Your task to perform on an android device: delete the emails in spam in the gmail app Image 0: 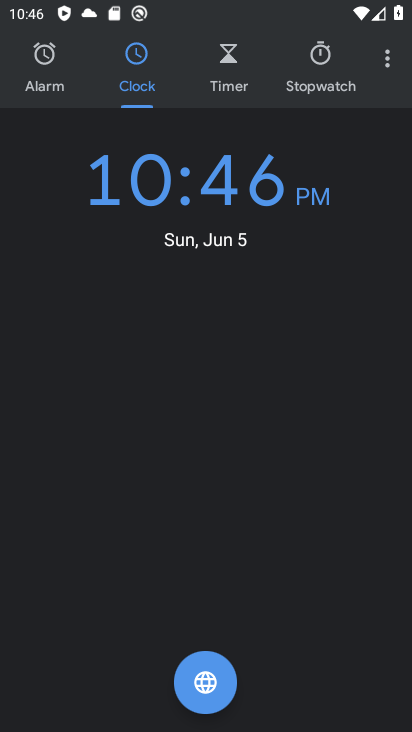
Step 0: press home button
Your task to perform on an android device: delete the emails in spam in the gmail app Image 1: 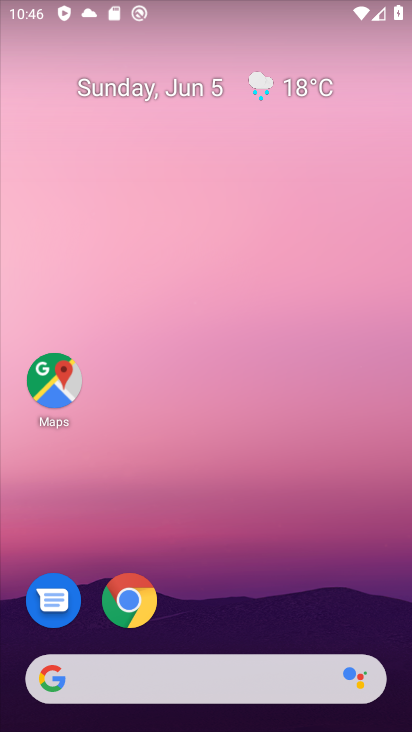
Step 1: drag from (198, 636) to (233, 192)
Your task to perform on an android device: delete the emails in spam in the gmail app Image 2: 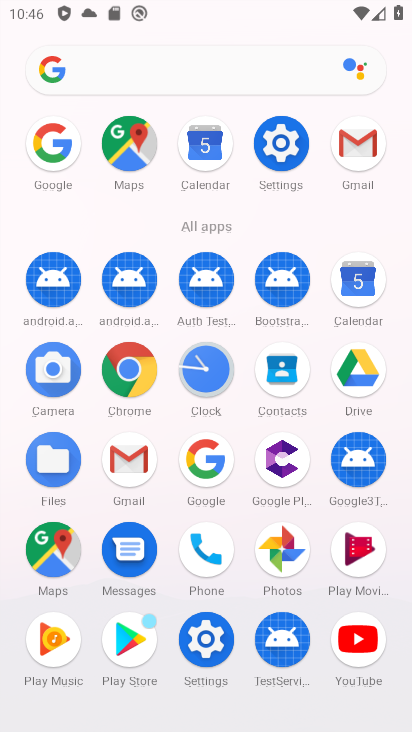
Step 2: click (346, 149)
Your task to perform on an android device: delete the emails in spam in the gmail app Image 3: 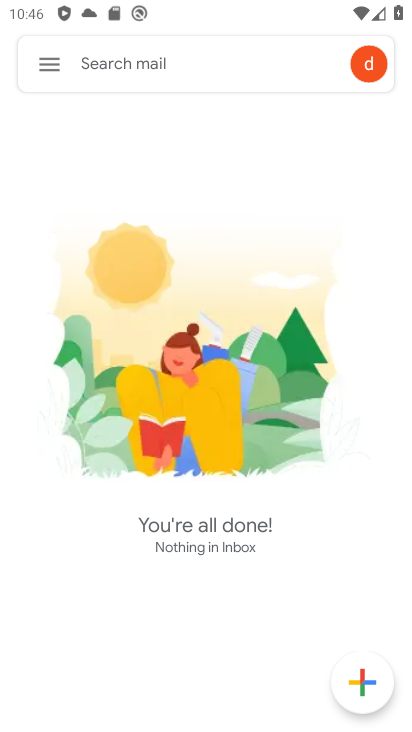
Step 3: click (50, 61)
Your task to perform on an android device: delete the emails in spam in the gmail app Image 4: 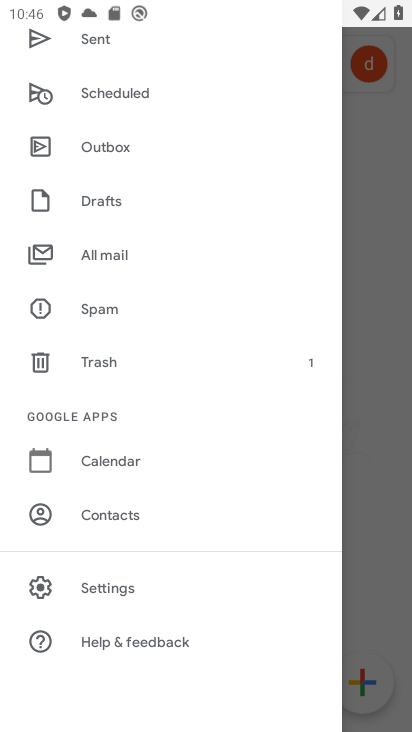
Step 4: drag from (179, 242) to (213, 539)
Your task to perform on an android device: delete the emails in spam in the gmail app Image 5: 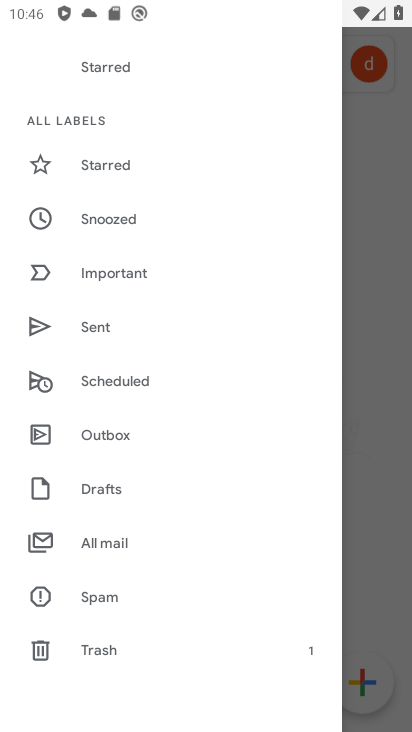
Step 5: drag from (194, 245) to (200, 515)
Your task to perform on an android device: delete the emails in spam in the gmail app Image 6: 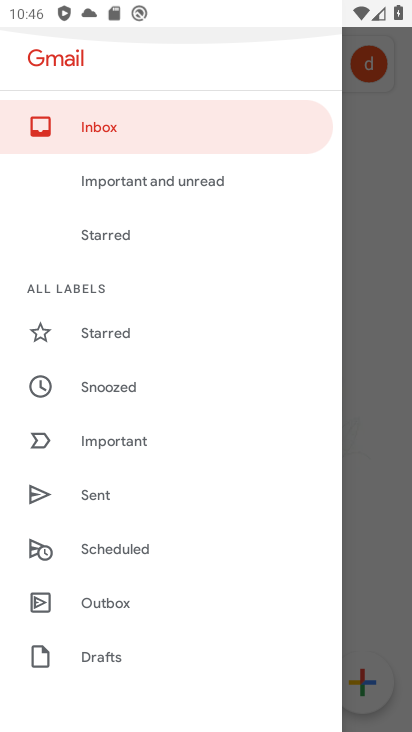
Step 6: drag from (211, 507) to (251, 229)
Your task to perform on an android device: delete the emails in spam in the gmail app Image 7: 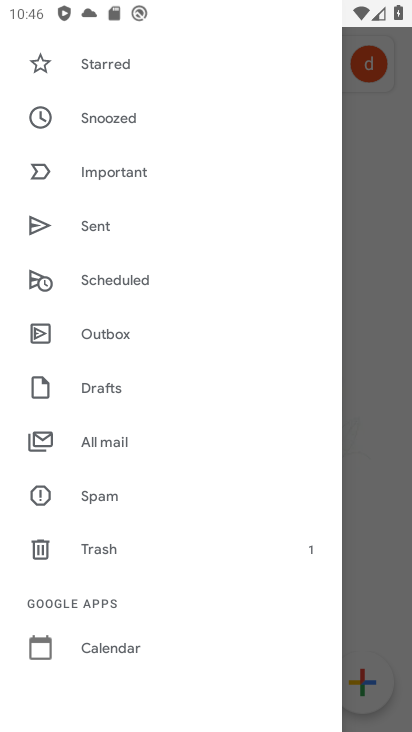
Step 7: click (122, 500)
Your task to perform on an android device: delete the emails in spam in the gmail app Image 8: 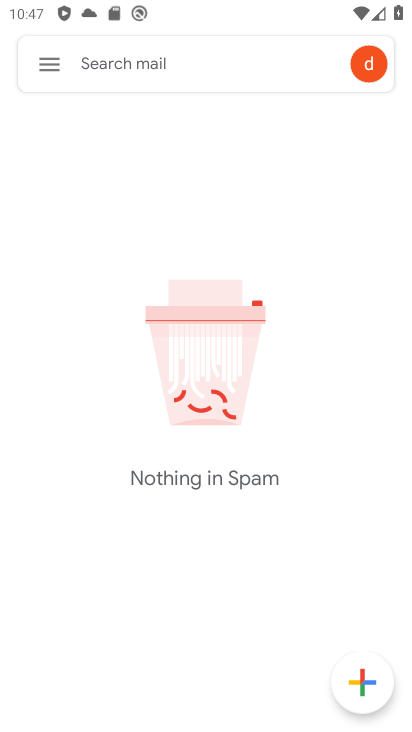
Step 8: task complete